Your task to perform on an android device: set default search engine in the chrome app Image 0: 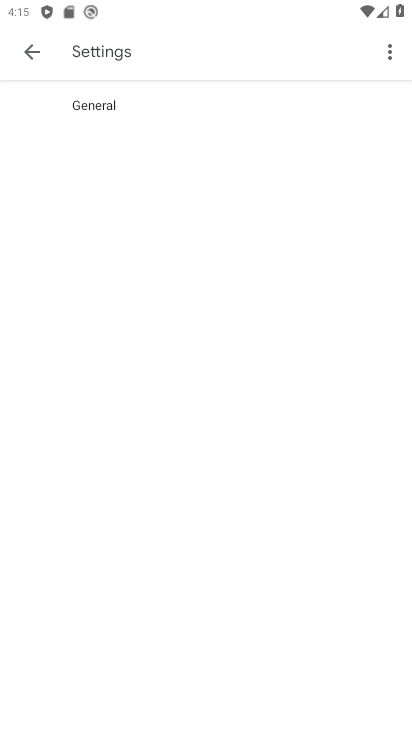
Step 0: press back button
Your task to perform on an android device: set default search engine in the chrome app Image 1: 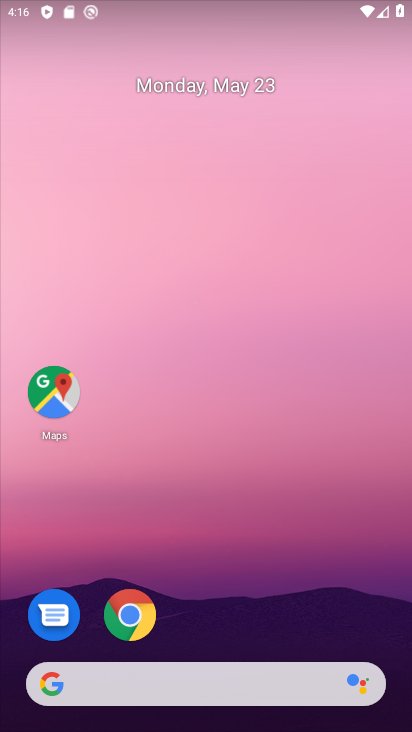
Step 1: click (124, 626)
Your task to perform on an android device: set default search engine in the chrome app Image 2: 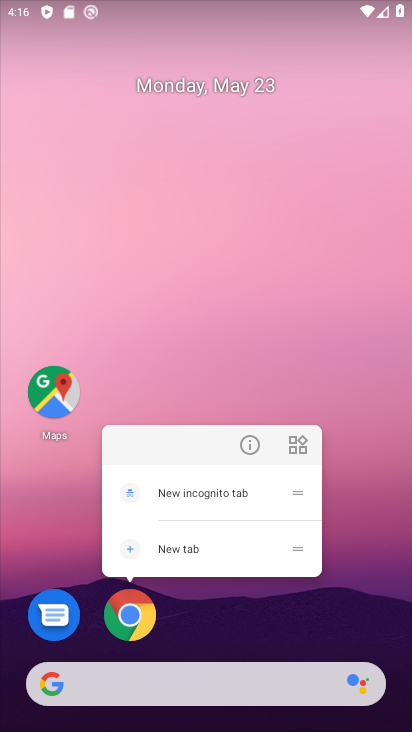
Step 2: click (123, 615)
Your task to perform on an android device: set default search engine in the chrome app Image 3: 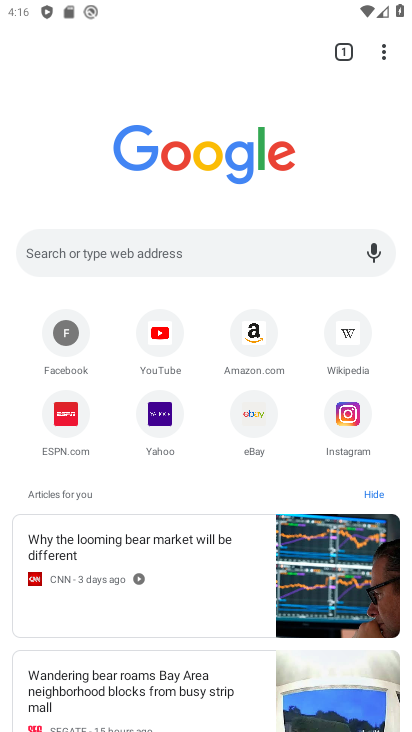
Step 3: drag from (385, 54) to (208, 445)
Your task to perform on an android device: set default search engine in the chrome app Image 4: 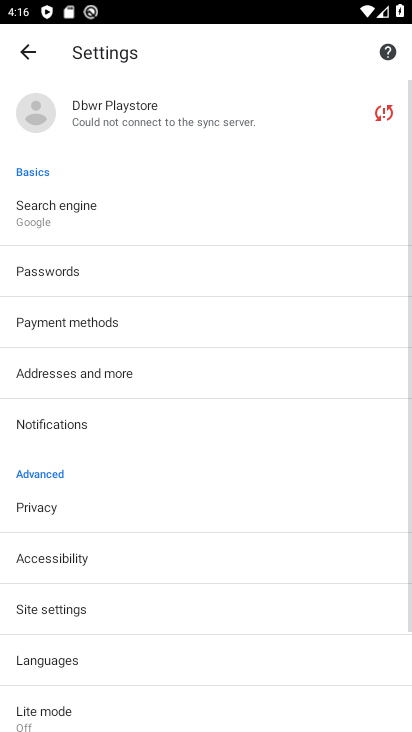
Step 4: click (95, 210)
Your task to perform on an android device: set default search engine in the chrome app Image 5: 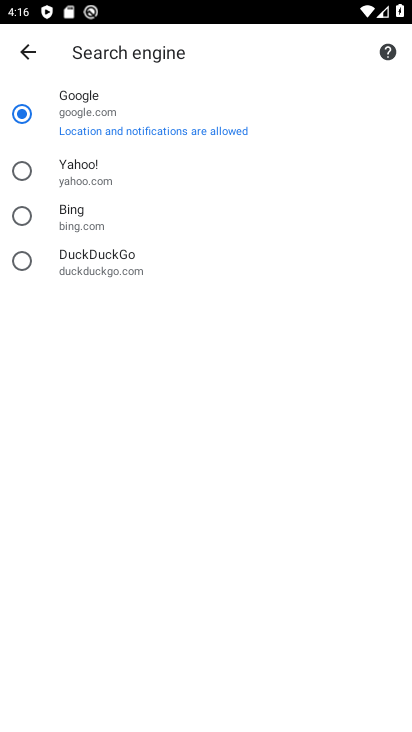
Step 5: click (91, 165)
Your task to perform on an android device: set default search engine in the chrome app Image 6: 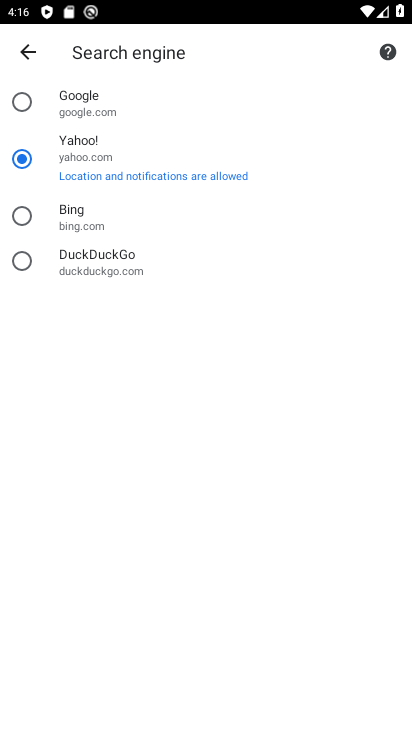
Step 6: task complete